Your task to perform on an android device: move a message to another label in the gmail app Image 0: 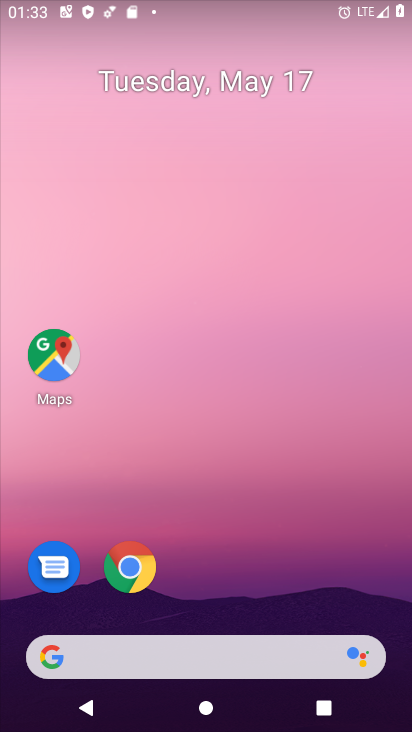
Step 0: drag from (209, 525) to (139, 66)
Your task to perform on an android device: move a message to another label in the gmail app Image 1: 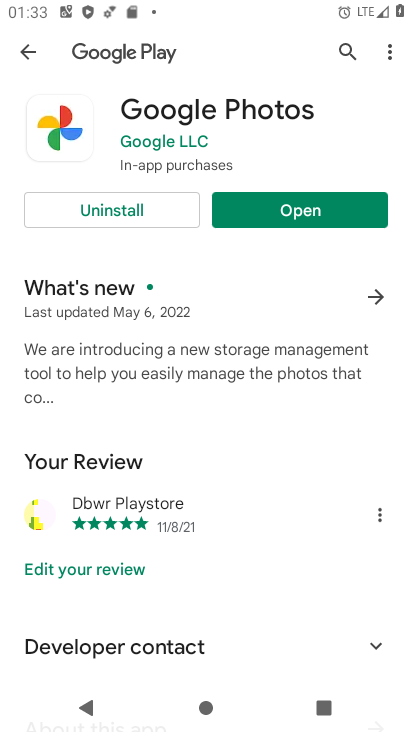
Step 1: press home button
Your task to perform on an android device: move a message to another label in the gmail app Image 2: 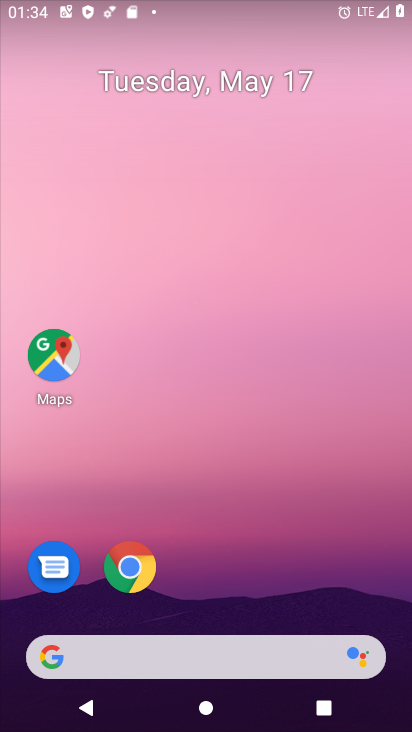
Step 2: drag from (247, 571) to (147, 104)
Your task to perform on an android device: move a message to another label in the gmail app Image 3: 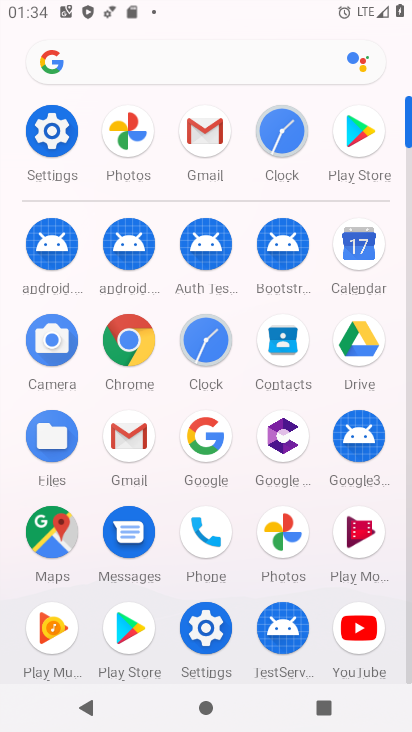
Step 3: click (201, 135)
Your task to perform on an android device: move a message to another label in the gmail app Image 4: 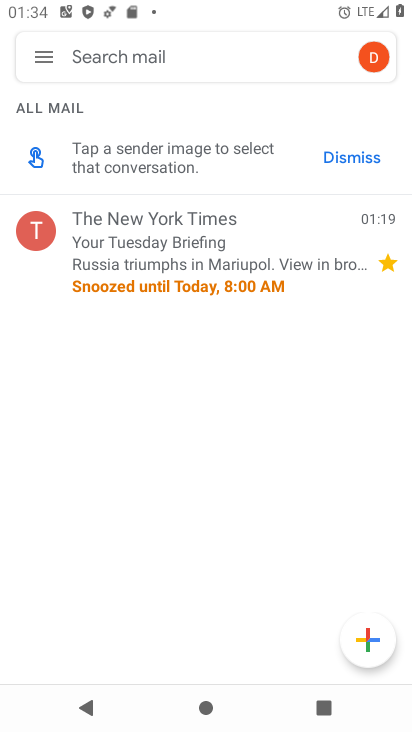
Step 4: click (193, 234)
Your task to perform on an android device: move a message to another label in the gmail app Image 5: 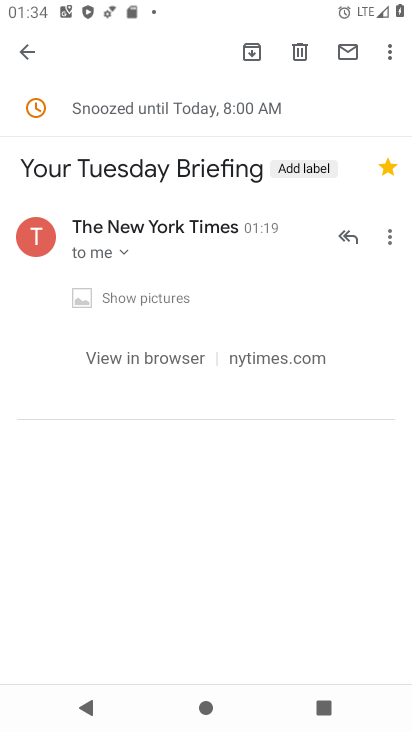
Step 5: click (386, 48)
Your task to perform on an android device: move a message to another label in the gmail app Image 6: 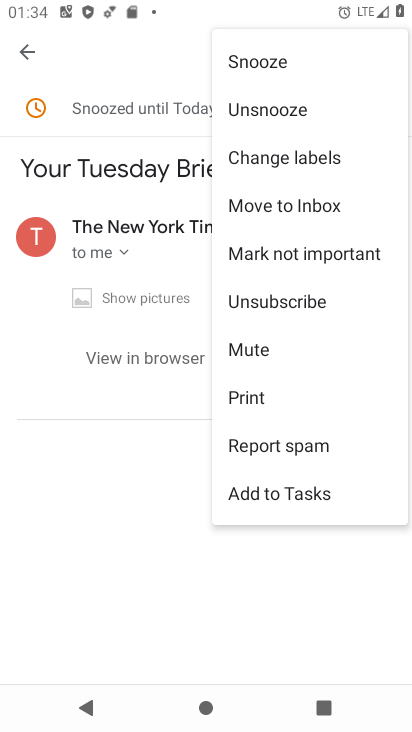
Step 6: click (266, 158)
Your task to perform on an android device: move a message to another label in the gmail app Image 7: 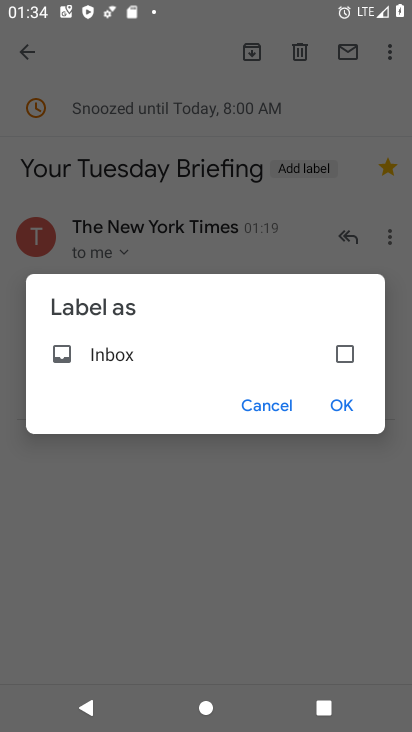
Step 7: click (344, 350)
Your task to perform on an android device: move a message to another label in the gmail app Image 8: 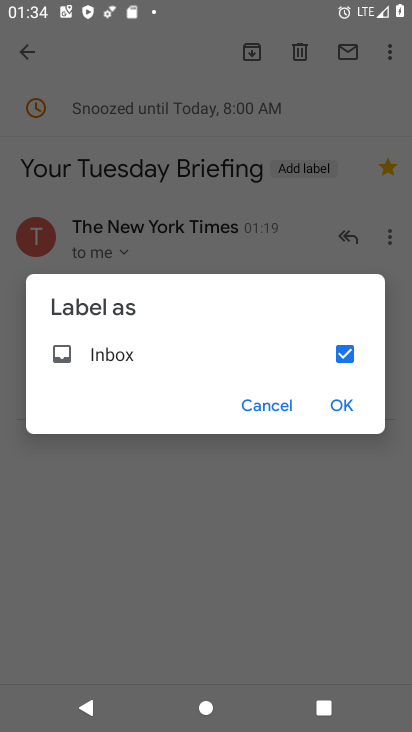
Step 8: click (339, 396)
Your task to perform on an android device: move a message to another label in the gmail app Image 9: 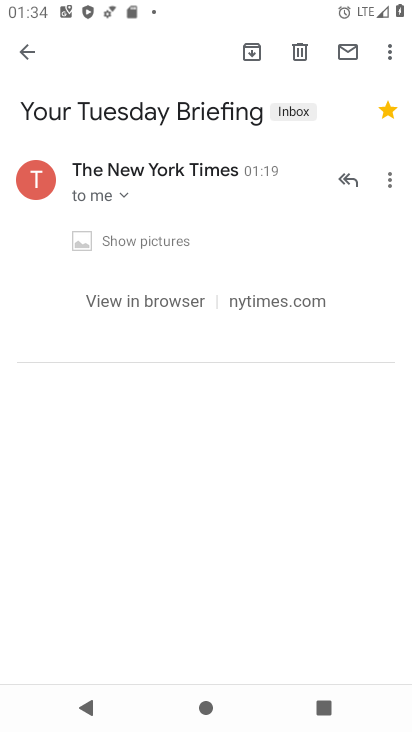
Step 9: task complete